Your task to perform on an android device: Go to sound settings Image 0: 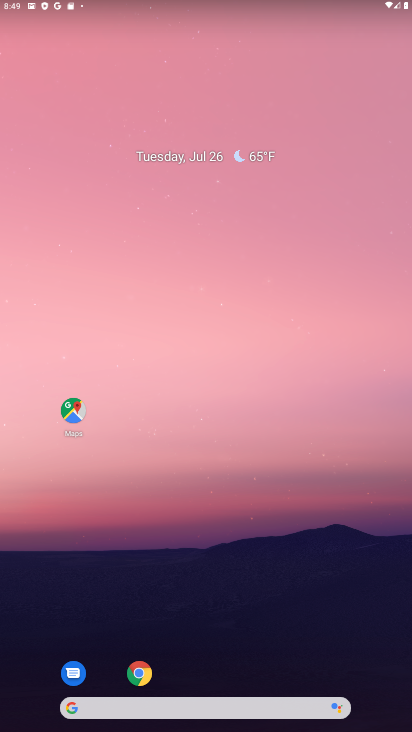
Step 0: drag from (387, 674) to (339, 216)
Your task to perform on an android device: Go to sound settings Image 1: 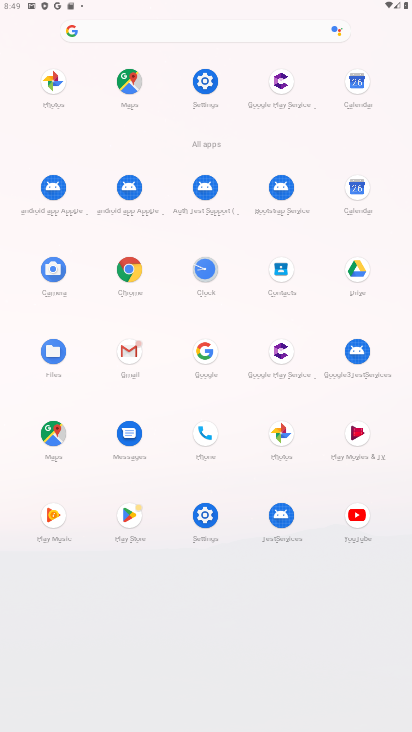
Step 1: click (206, 517)
Your task to perform on an android device: Go to sound settings Image 2: 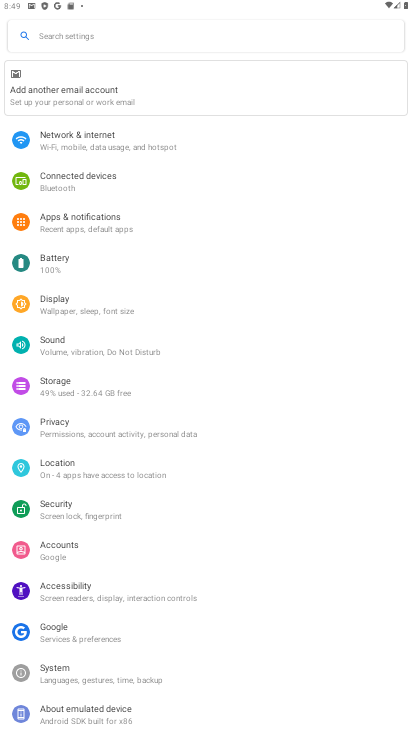
Step 2: click (52, 344)
Your task to perform on an android device: Go to sound settings Image 3: 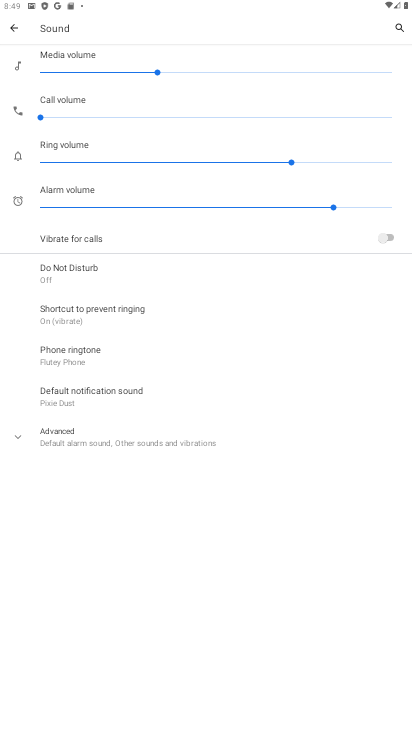
Step 3: click (18, 439)
Your task to perform on an android device: Go to sound settings Image 4: 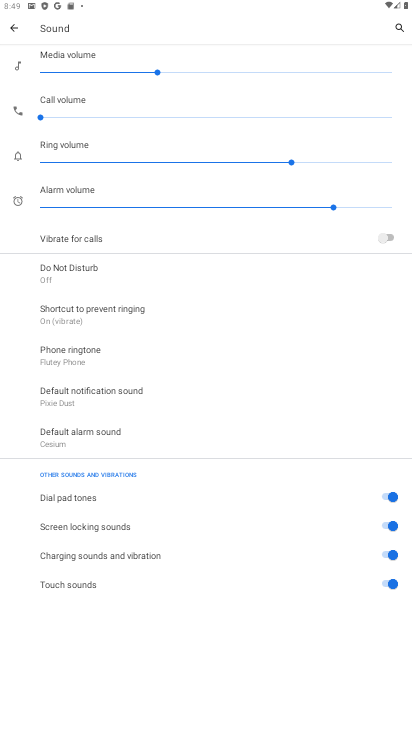
Step 4: task complete